Your task to perform on an android device: delete browsing data in the chrome app Image 0: 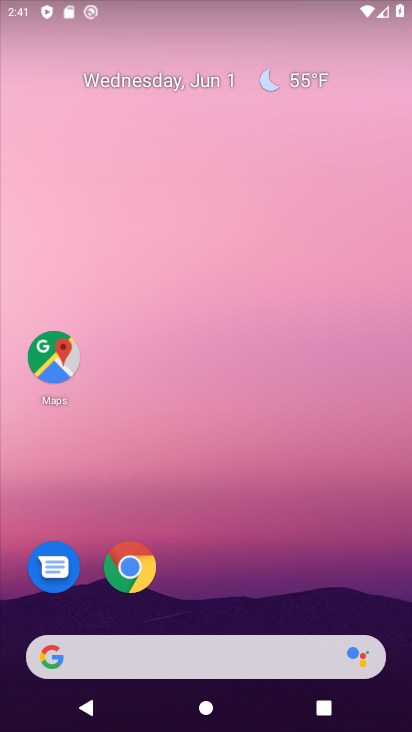
Step 0: click (127, 572)
Your task to perform on an android device: delete browsing data in the chrome app Image 1: 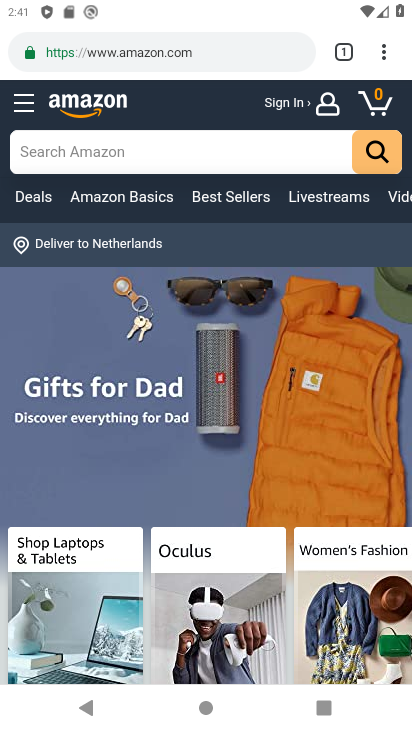
Step 1: click (384, 54)
Your task to perform on an android device: delete browsing data in the chrome app Image 2: 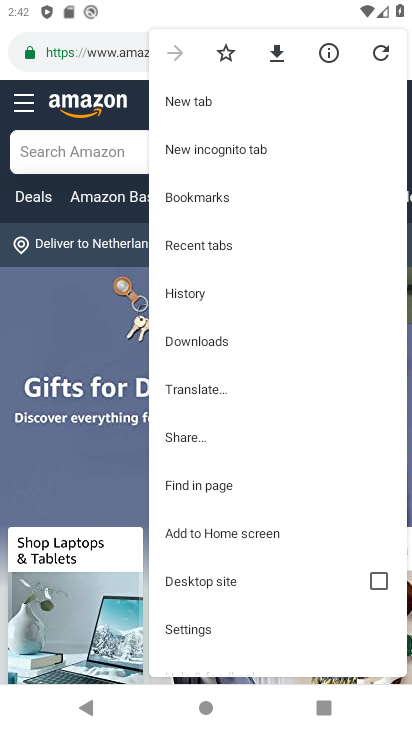
Step 2: click (197, 631)
Your task to perform on an android device: delete browsing data in the chrome app Image 3: 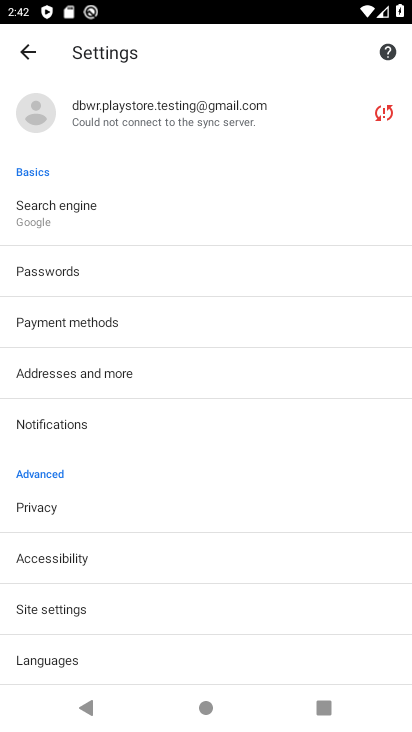
Step 3: click (55, 514)
Your task to perform on an android device: delete browsing data in the chrome app Image 4: 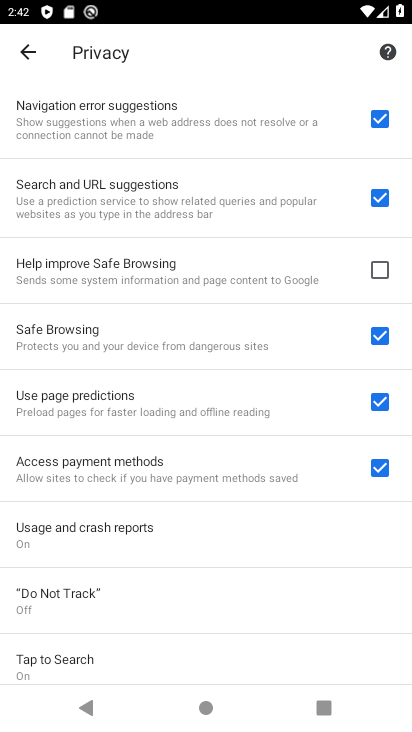
Step 4: drag from (289, 627) to (332, 274)
Your task to perform on an android device: delete browsing data in the chrome app Image 5: 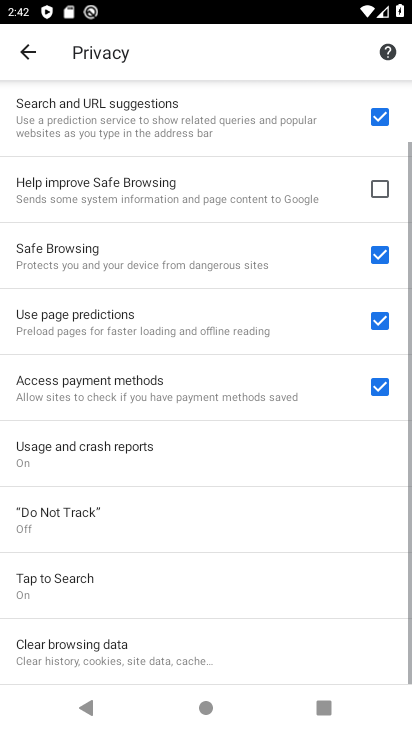
Step 5: click (141, 654)
Your task to perform on an android device: delete browsing data in the chrome app Image 6: 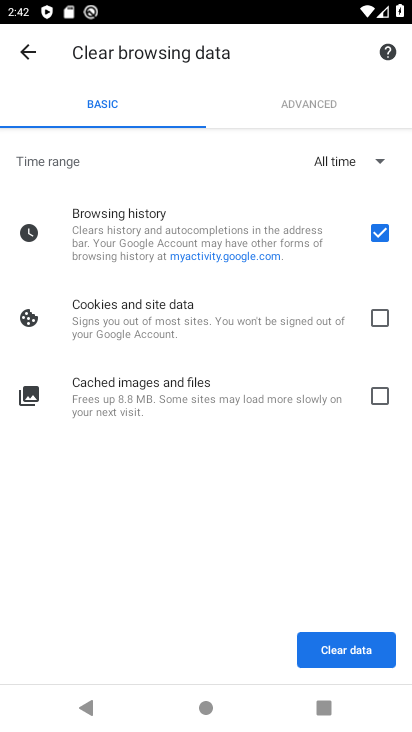
Step 6: click (337, 655)
Your task to perform on an android device: delete browsing data in the chrome app Image 7: 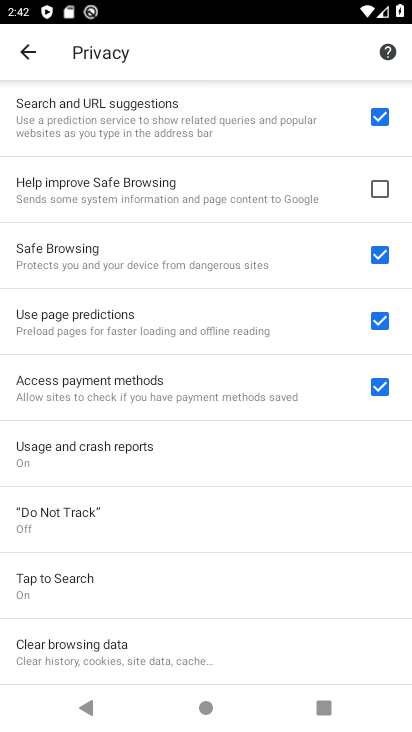
Step 7: task complete